Your task to perform on an android device: empty trash in the gmail app Image 0: 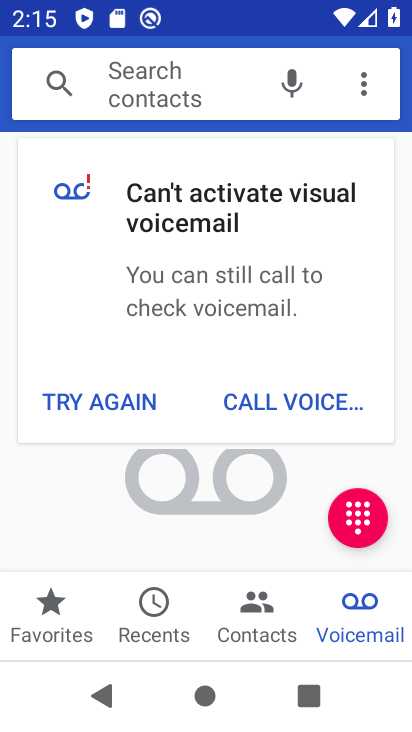
Step 0: press back button
Your task to perform on an android device: empty trash in the gmail app Image 1: 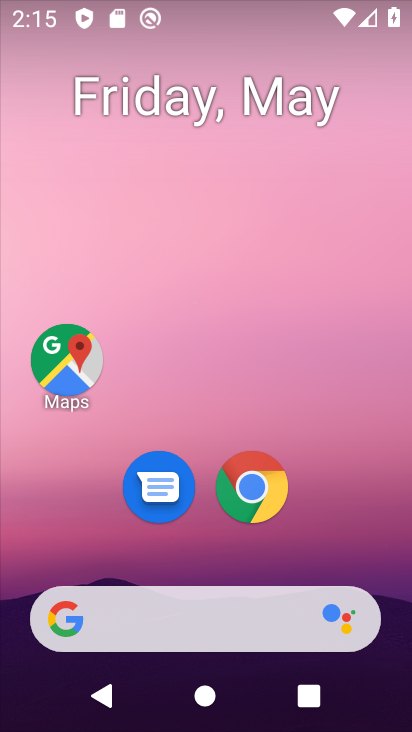
Step 1: drag from (184, 537) to (237, 41)
Your task to perform on an android device: empty trash in the gmail app Image 2: 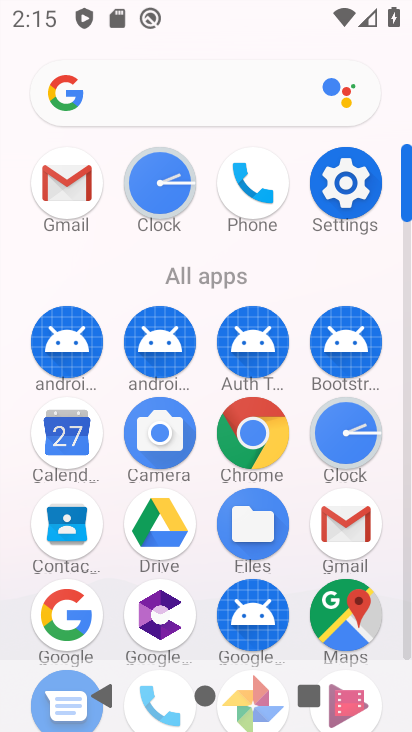
Step 2: click (43, 181)
Your task to perform on an android device: empty trash in the gmail app Image 3: 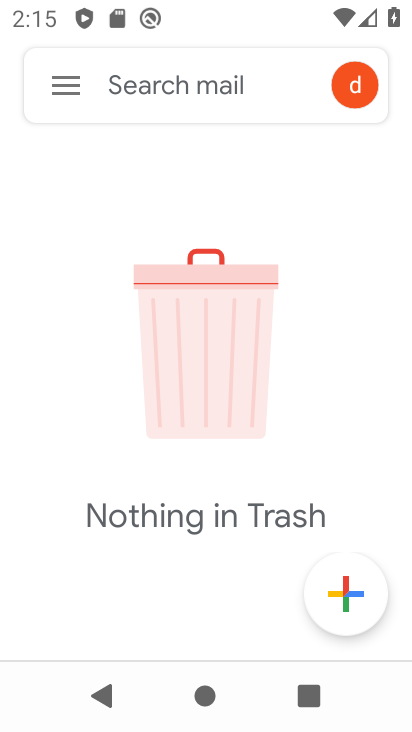
Step 3: click (61, 81)
Your task to perform on an android device: empty trash in the gmail app Image 4: 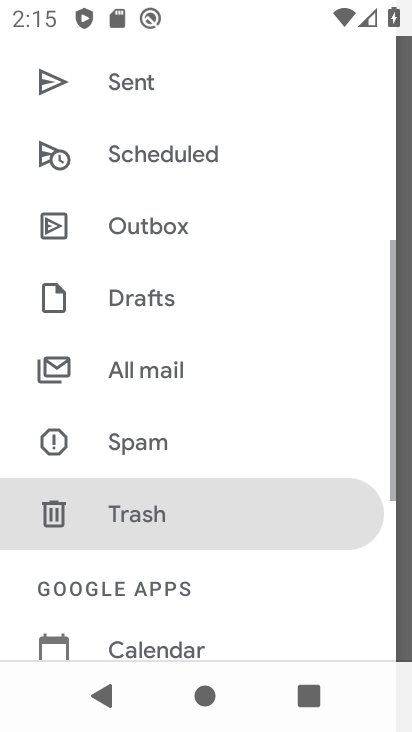
Step 4: task complete